Your task to perform on an android device: remove spam from my inbox in the gmail app Image 0: 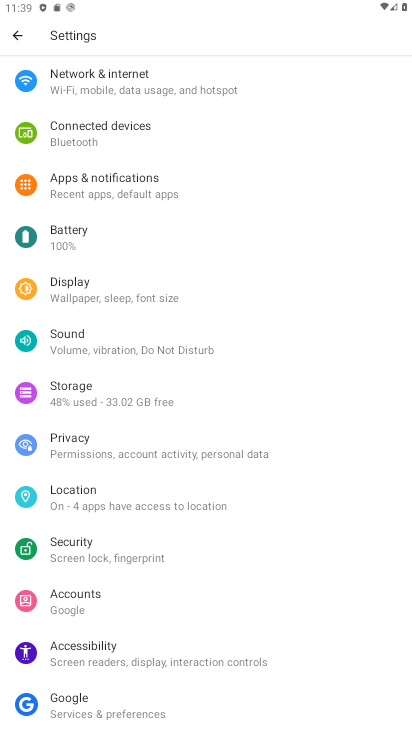
Step 0: press home button
Your task to perform on an android device: remove spam from my inbox in the gmail app Image 1: 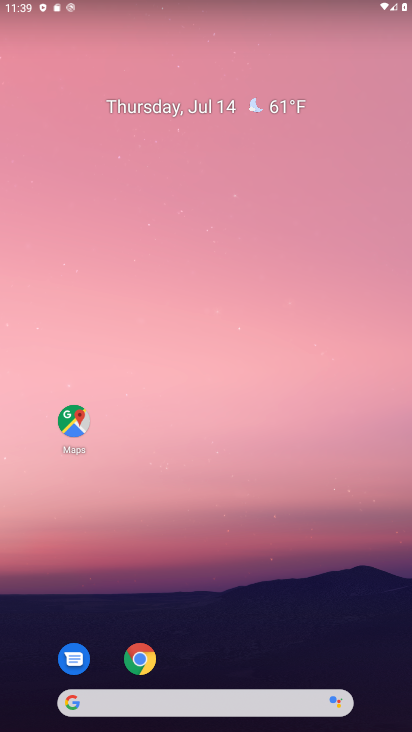
Step 1: drag from (185, 705) to (223, 70)
Your task to perform on an android device: remove spam from my inbox in the gmail app Image 2: 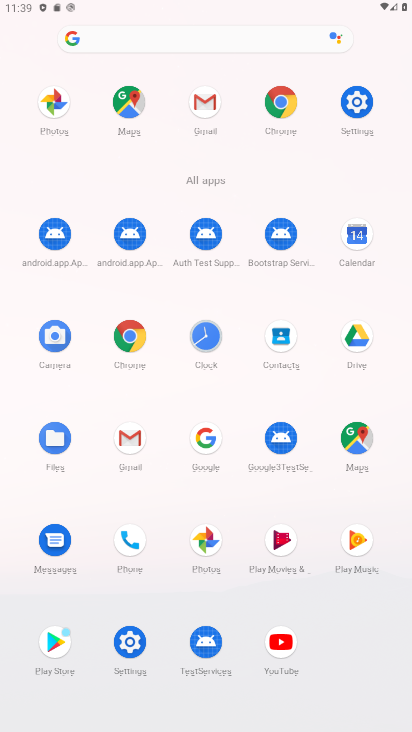
Step 2: click (205, 98)
Your task to perform on an android device: remove spam from my inbox in the gmail app Image 3: 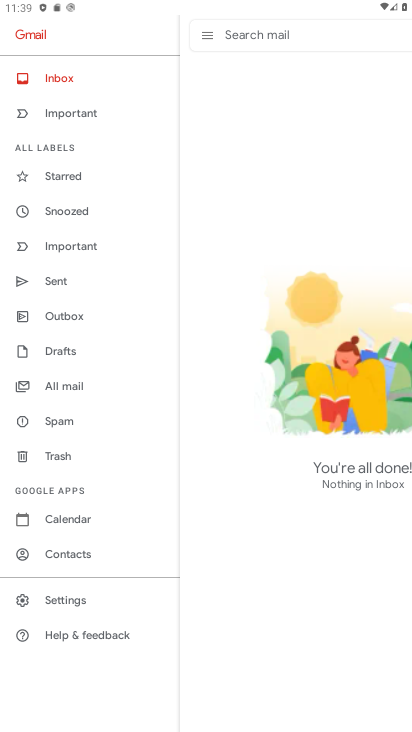
Step 3: click (62, 421)
Your task to perform on an android device: remove spam from my inbox in the gmail app Image 4: 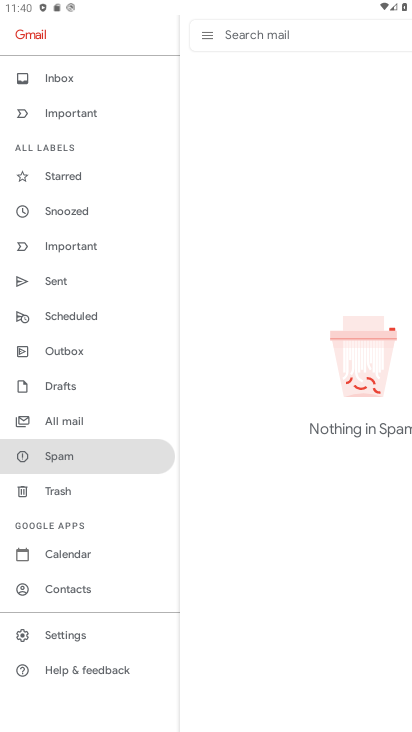
Step 4: task complete